Your task to perform on an android device: Check the news Image 0: 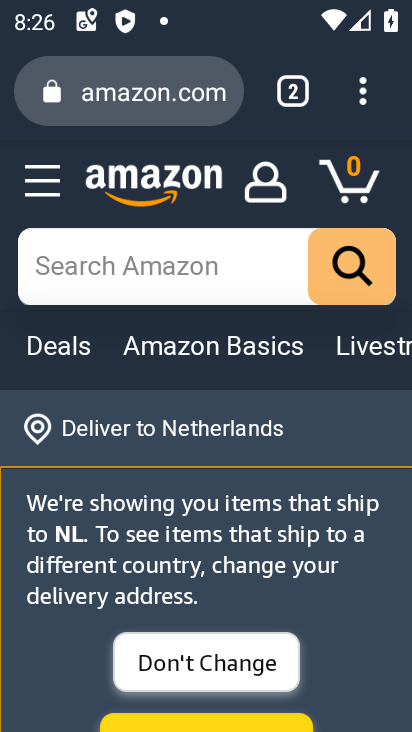
Step 0: press back button
Your task to perform on an android device: Check the news Image 1: 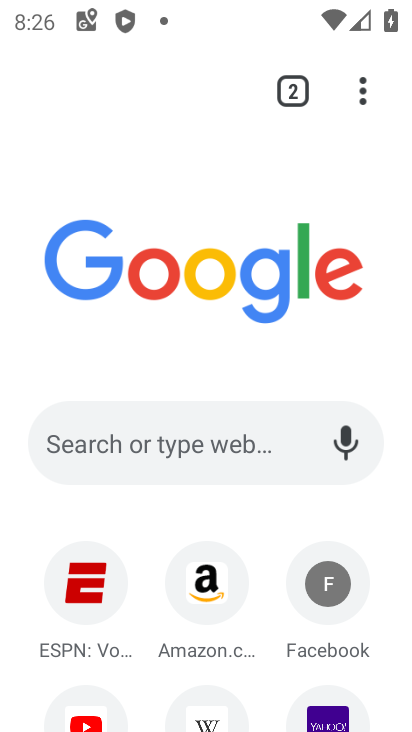
Step 1: click (209, 428)
Your task to perform on an android device: Check the news Image 2: 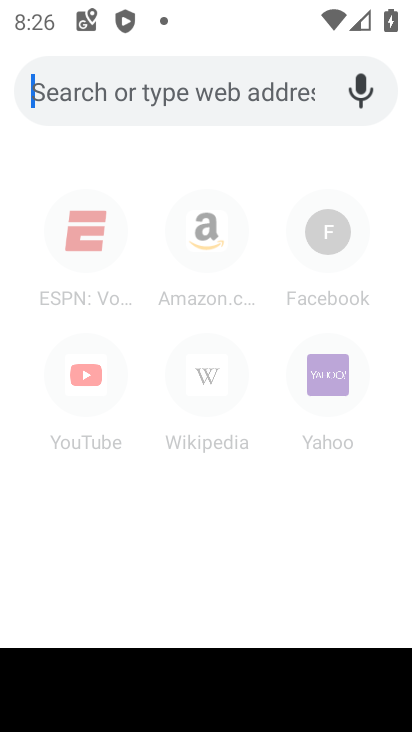
Step 2: click (106, 80)
Your task to perform on an android device: Check the news Image 3: 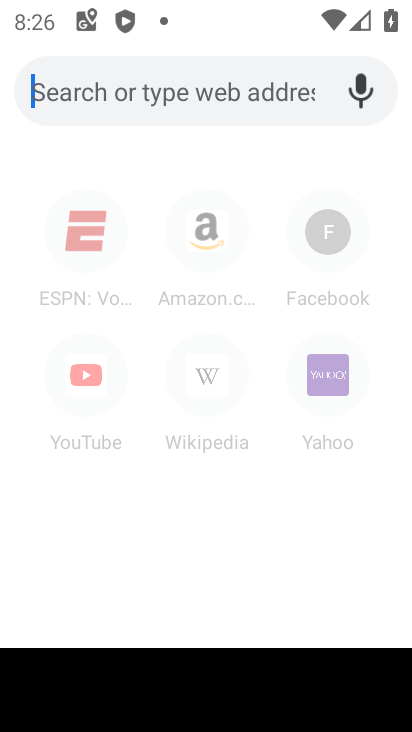
Step 3: type "news"
Your task to perform on an android device: Check the news Image 4: 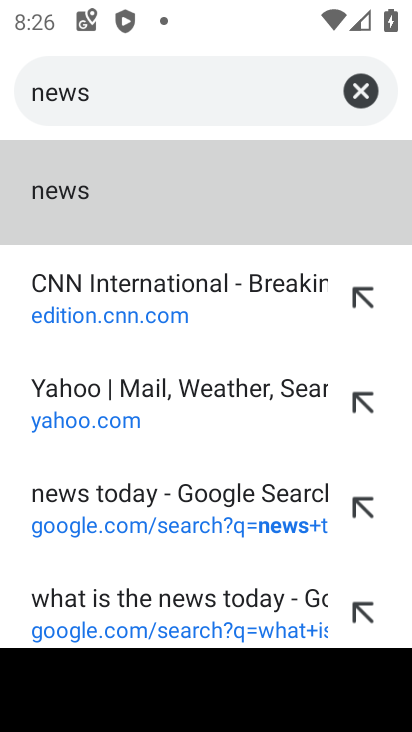
Step 4: click (133, 160)
Your task to perform on an android device: Check the news Image 5: 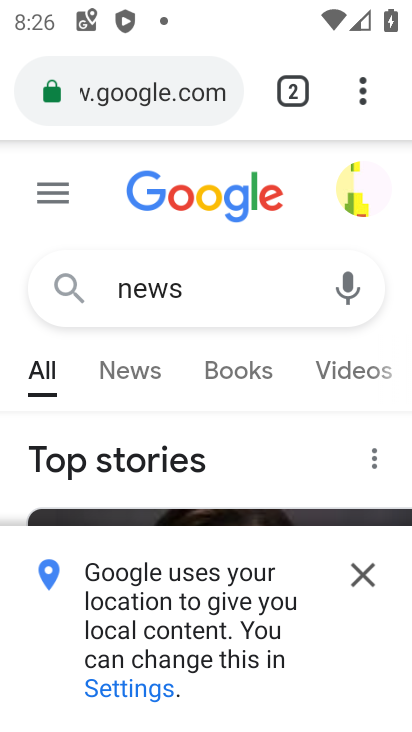
Step 5: click (357, 578)
Your task to perform on an android device: Check the news Image 6: 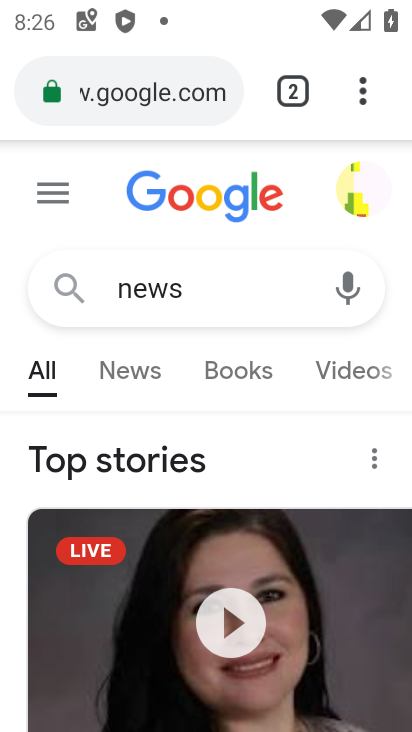
Step 6: task complete